Your task to perform on an android device: turn on wifi Image 0: 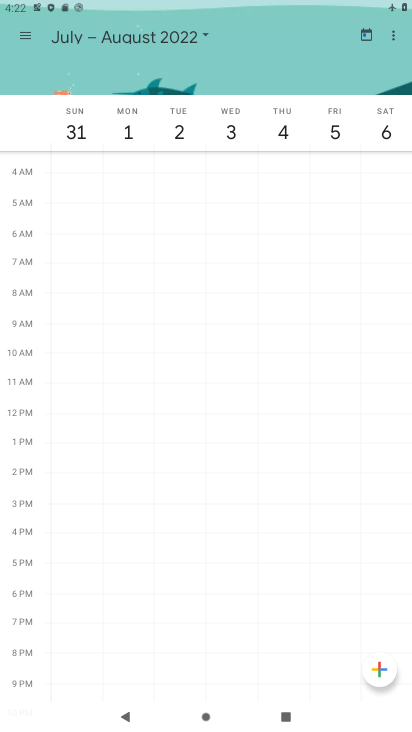
Step 0: press home button
Your task to perform on an android device: turn on wifi Image 1: 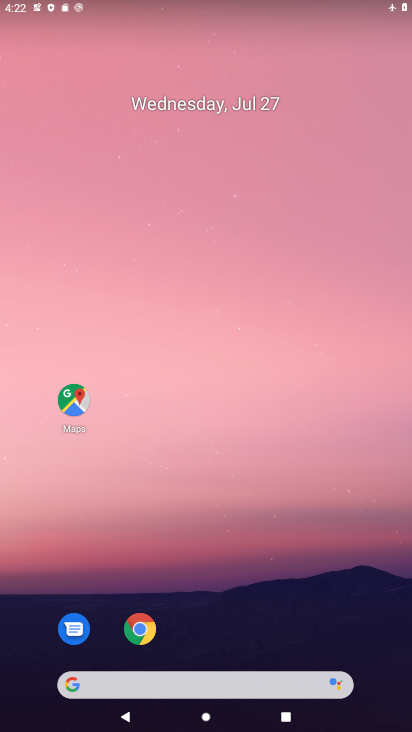
Step 1: drag from (185, 644) to (123, 49)
Your task to perform on an android device: turn on wifi Image 2: 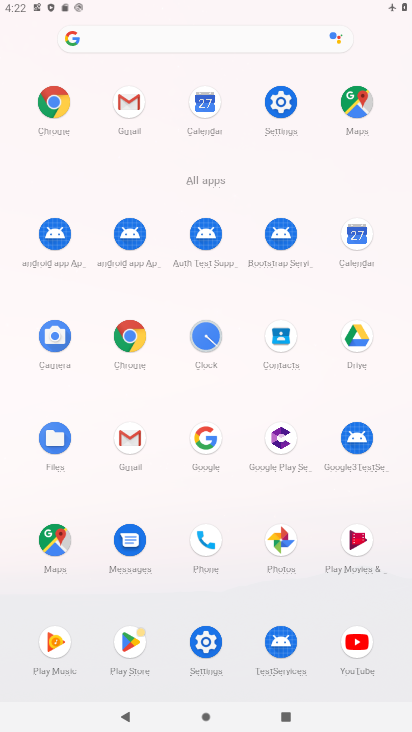
Step 2: click (277, 111)
Your task to perform on an android device: turn on wifi Image 3: 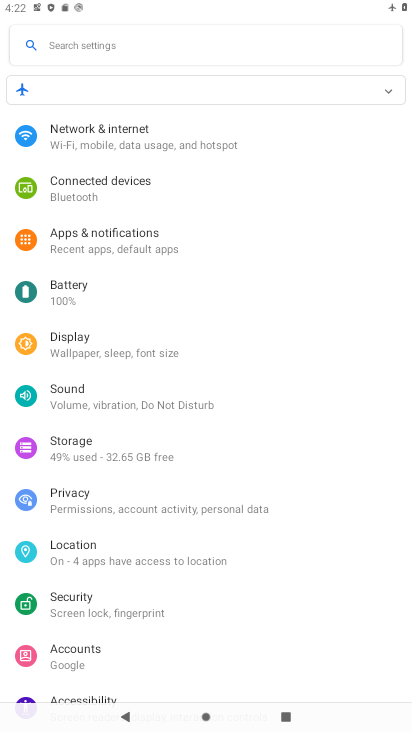
Step 3: click (159, 125)
Your task to perform on an android device: turn on wifi Image 4: 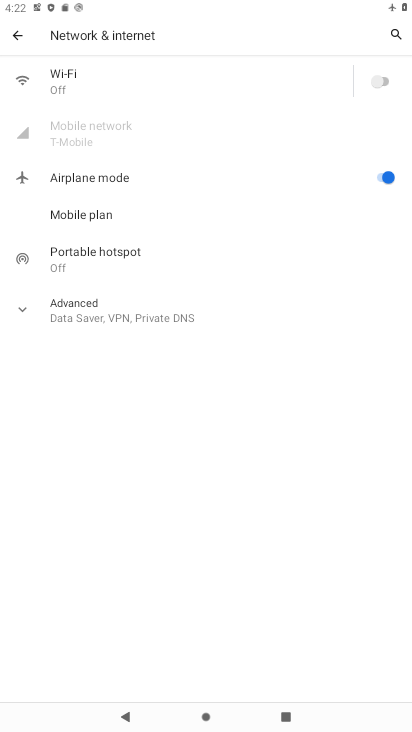
Step 4: click (371, 82)
Your task to perform on an android device: turn on wifi Image 5: 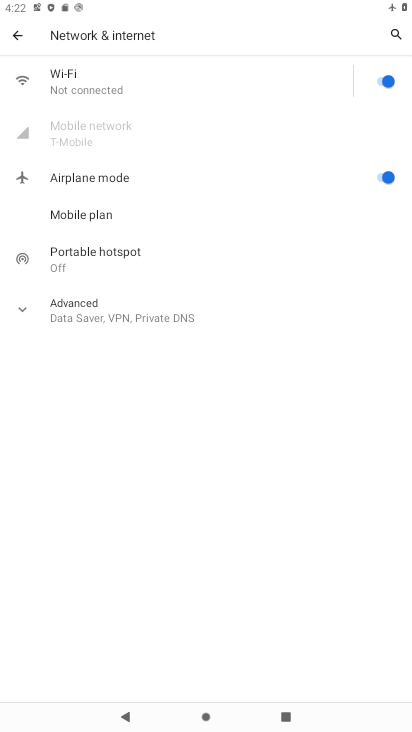
Step 5: task complete